Your task to perform on an android device: toggle javascript in the chrome app Image 0: 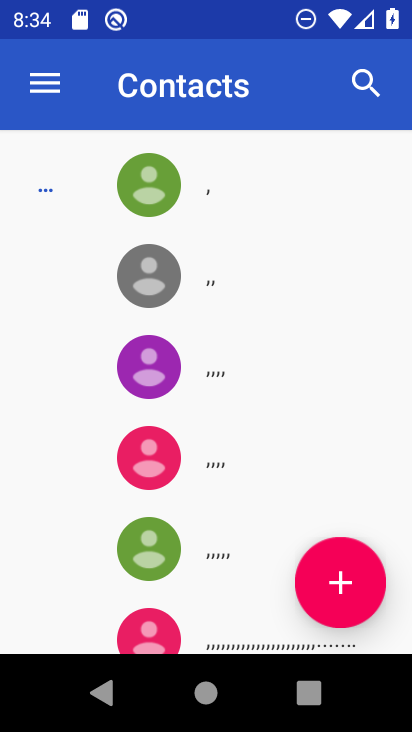
Step 0: press home button
Your task to perform on an android device: toggle javascript in the chrome app Image 1: 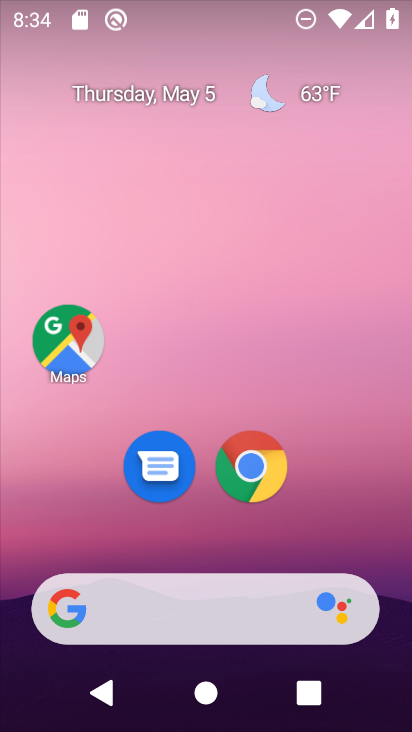
Step 1: click (268, 443)
Your task to perform on an android device: toggle javascript in the chrome app Image 2: 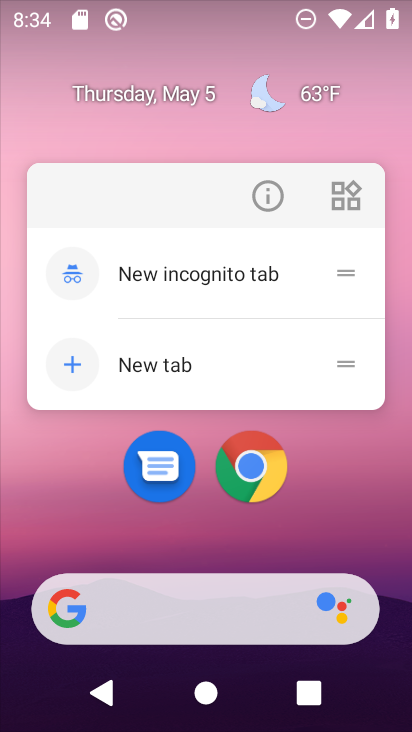
Step 2: click (268, 443)
Your task to perform on an android device: toggle javascript in the chrome app Image 3: 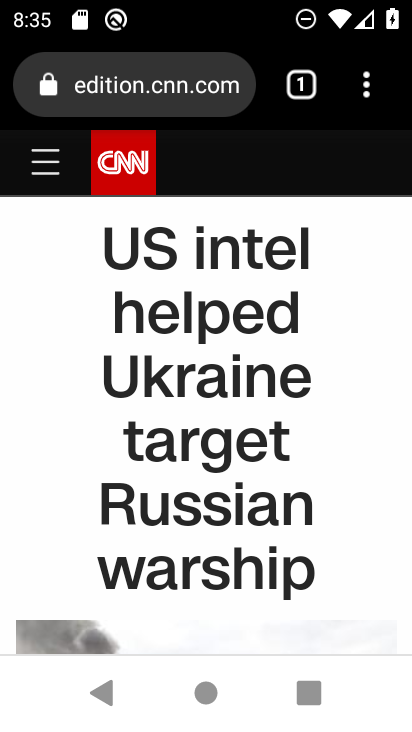
Step 3: drag from (363, 87) to (103, 517)
Your task to perform on an android device: toggle javascript in the chrome app Image 4: 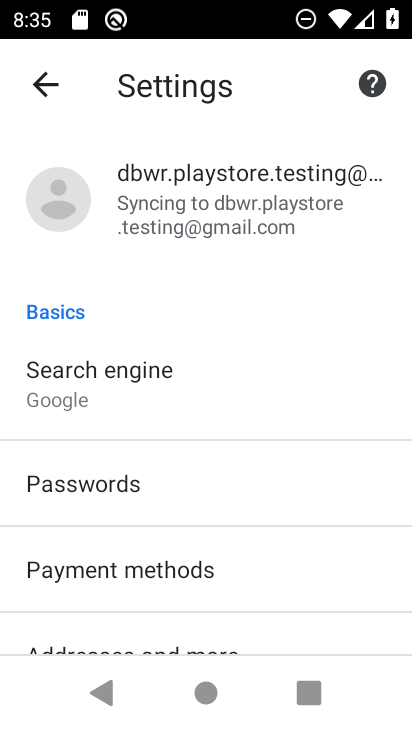
Step 4: drag from (331, 594) to (320, 74)
Your task to perform on an android device: toggle javascript in the chrome app Image 5: 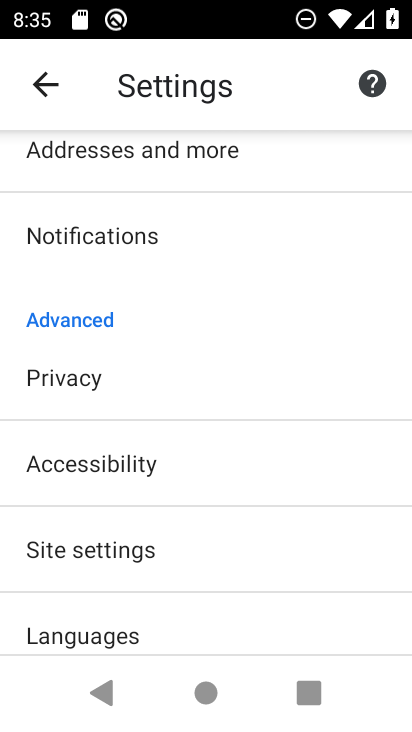
Step 5: click (122, 545)
Your task to perform on an android device: toggle javascript in the chrome app Image 6: 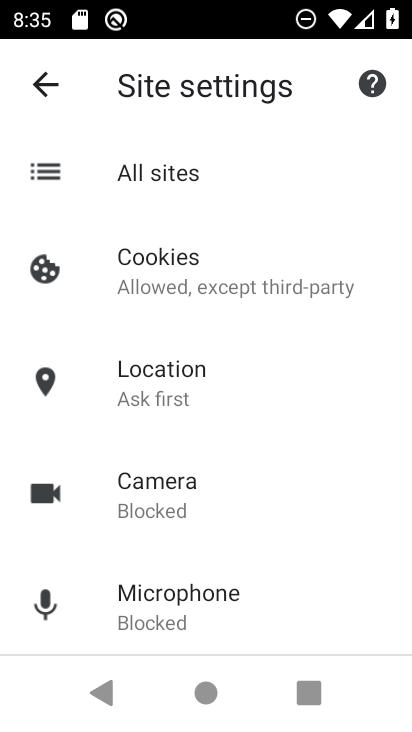
Step 6: drag from (255, 478) to (211, 72)
Your task to perform on an android device: toggle javascript in the chrome app Image 7: 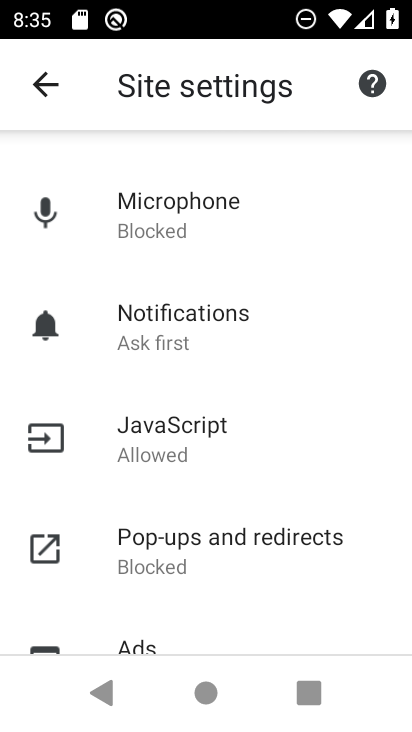
Step 7: click (158, 448)
Your task to perform on an android device: toggle javascript in the chrome app Image 8: 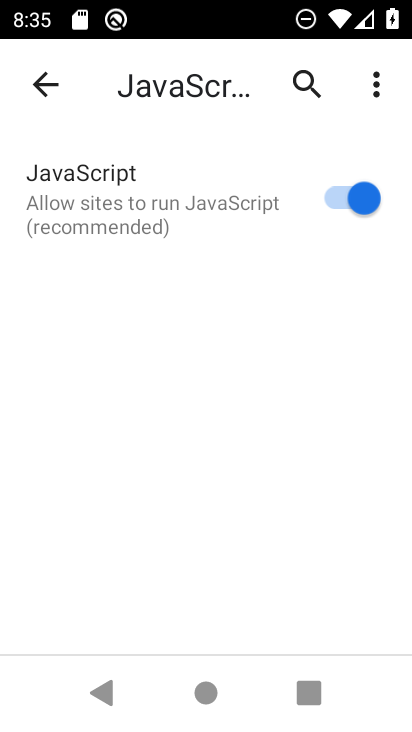
Step 8: click (340, 198)
Your task to perform on an android device: toggle javascript in the chrome app Image 9: 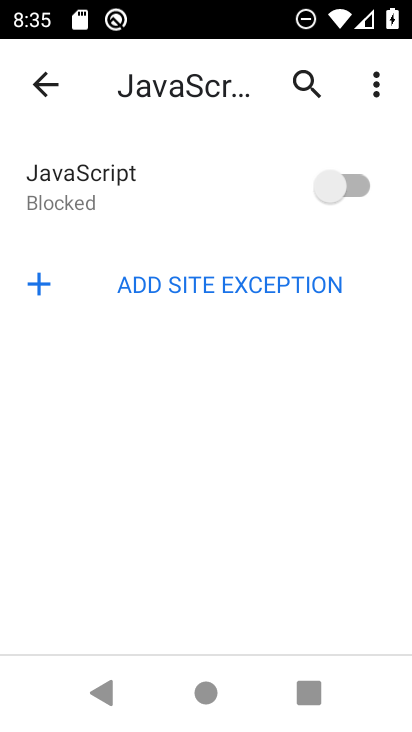
Step 9: task complete